Your task to perform on an android device: When is my next appointment? Image 0: 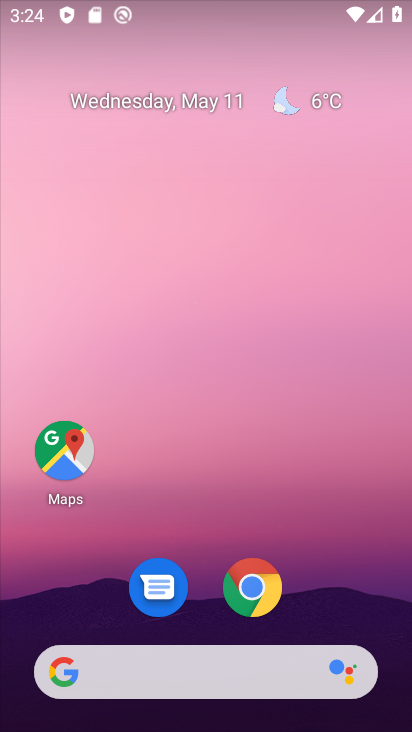
Step 0: drag from (318, 577) to (328, 185)
Your task to perform on an android device: When is my next appointment? Image 1: 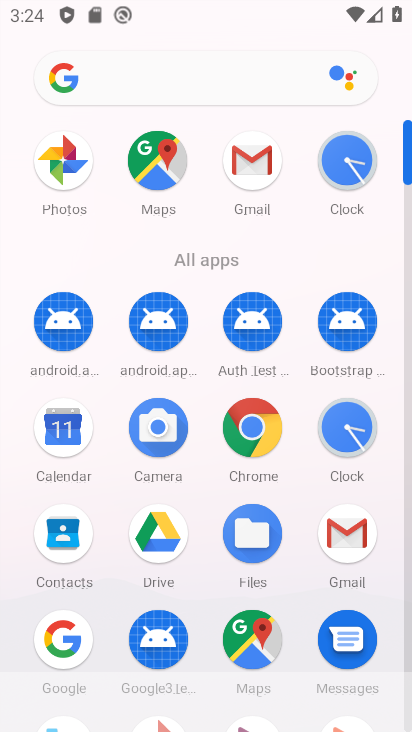
Step 1: click (54, 423)
Your task to perform on an android device: When is my next appointment? Image 2: 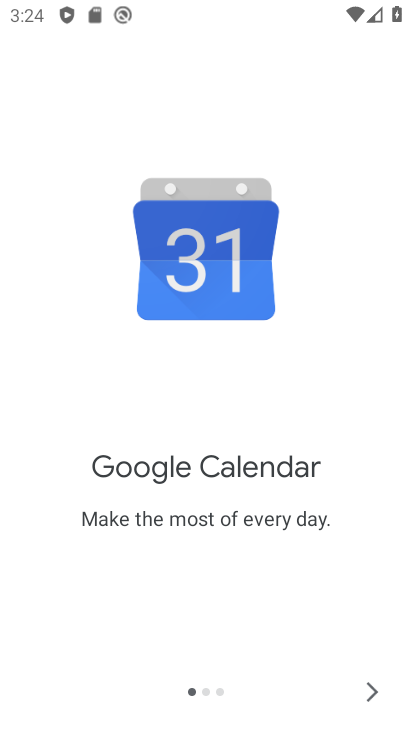
Step 2: click (383, 699)
Your task to perform on an android device: When is my next appointment? Image 3: 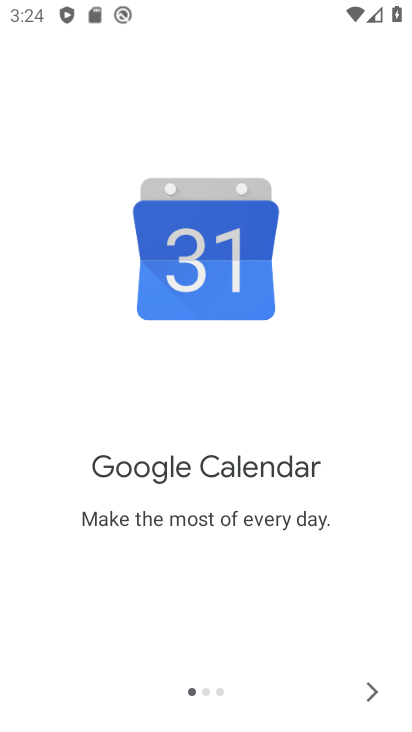
Step 3: click (384, 699)
Your task to perform on an android device: When is my next appointment? Image 4: 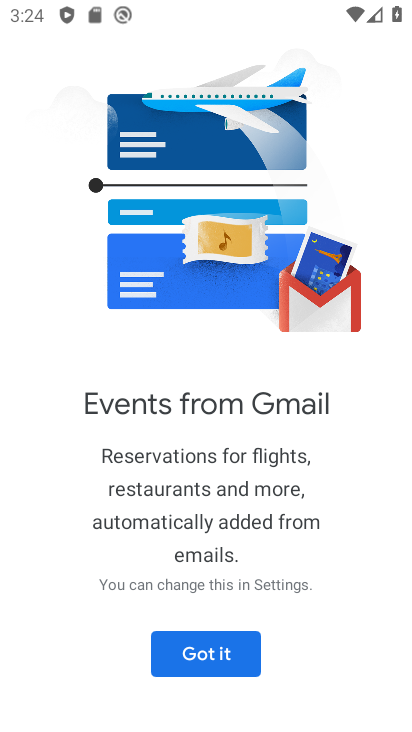
Step 4: click (217, 636)
Your task to perform on an android device: When is my next appointment? Image 5: 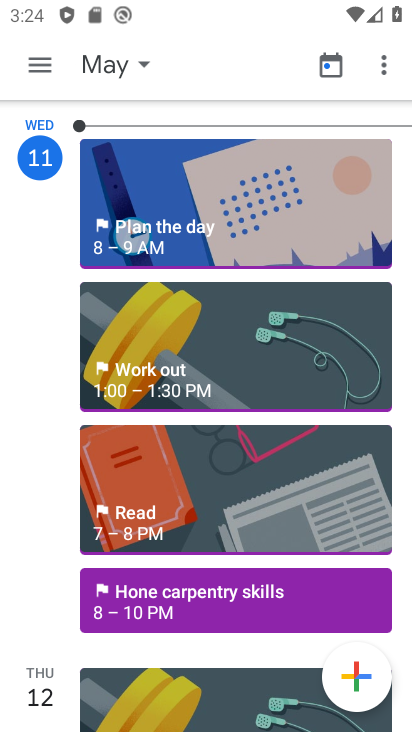
Step 5: drag from (157, 554) to (193, 263)
Your task to perform on an android device: When is my next appointment? Image 6: 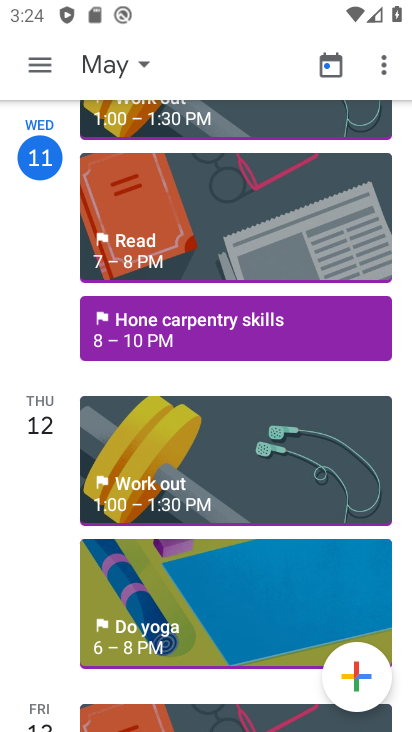
Step 6: drag from (171, 226) to (119, 690)
Your task to perform on an android device: When is my next appointment? Image 7: 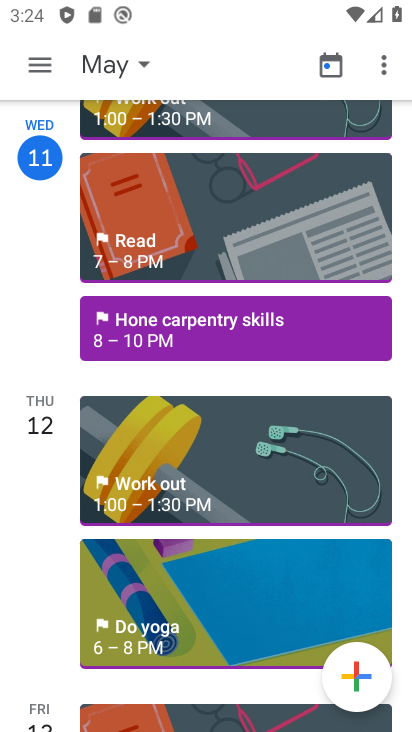
Step 7: click (33, 64)
Your task to perform on an android device: When is my next appointment? Image 8: 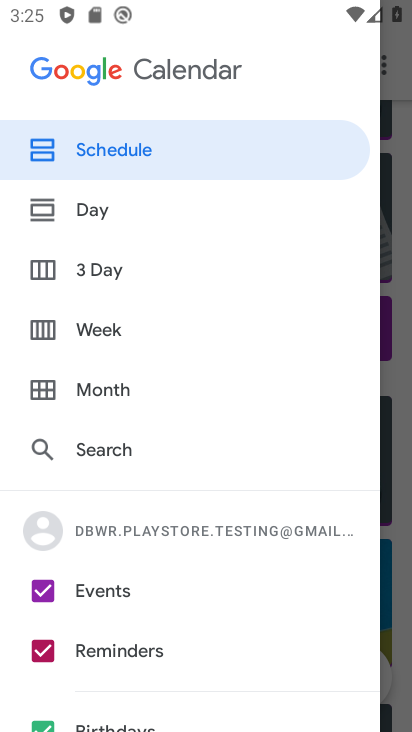
Step 8: click (259, 133)
Your task to perform on an android device: When is my next appointment? Image 9: 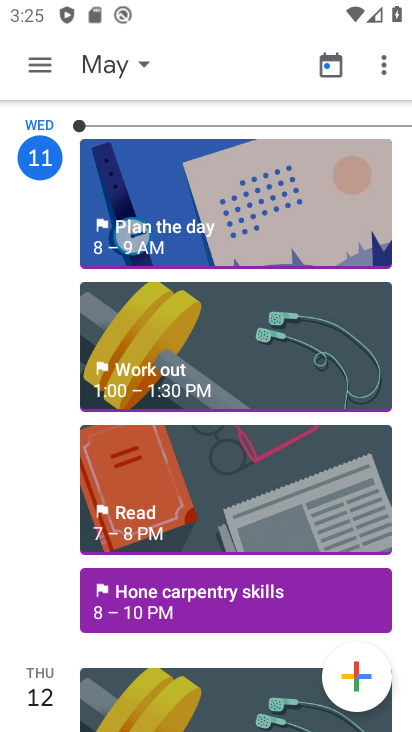
Step 9: task complete